Your task to perform on an android device: turn off airplane mode Image 0: 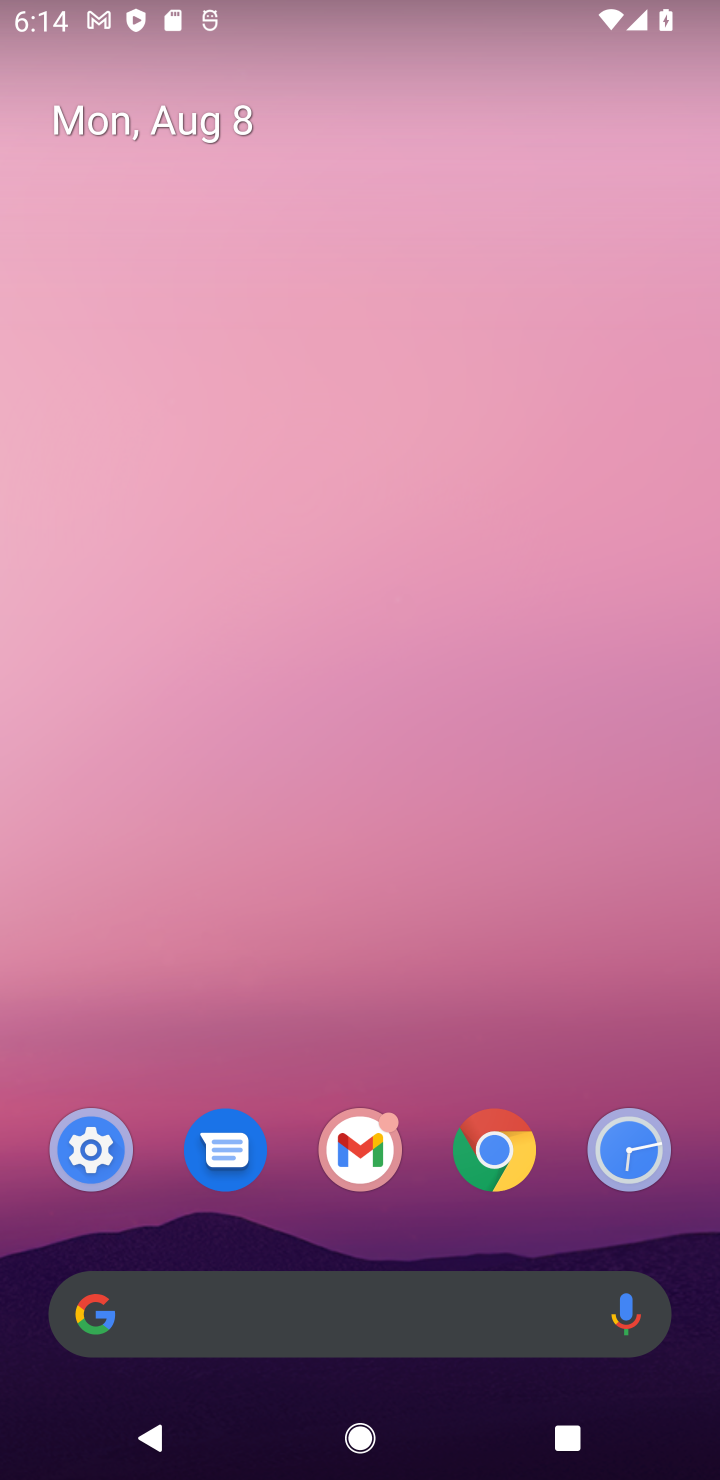
Step 0: click (113, 1182)
Your task to perform on an android device: turn off airplane mode Image 1: 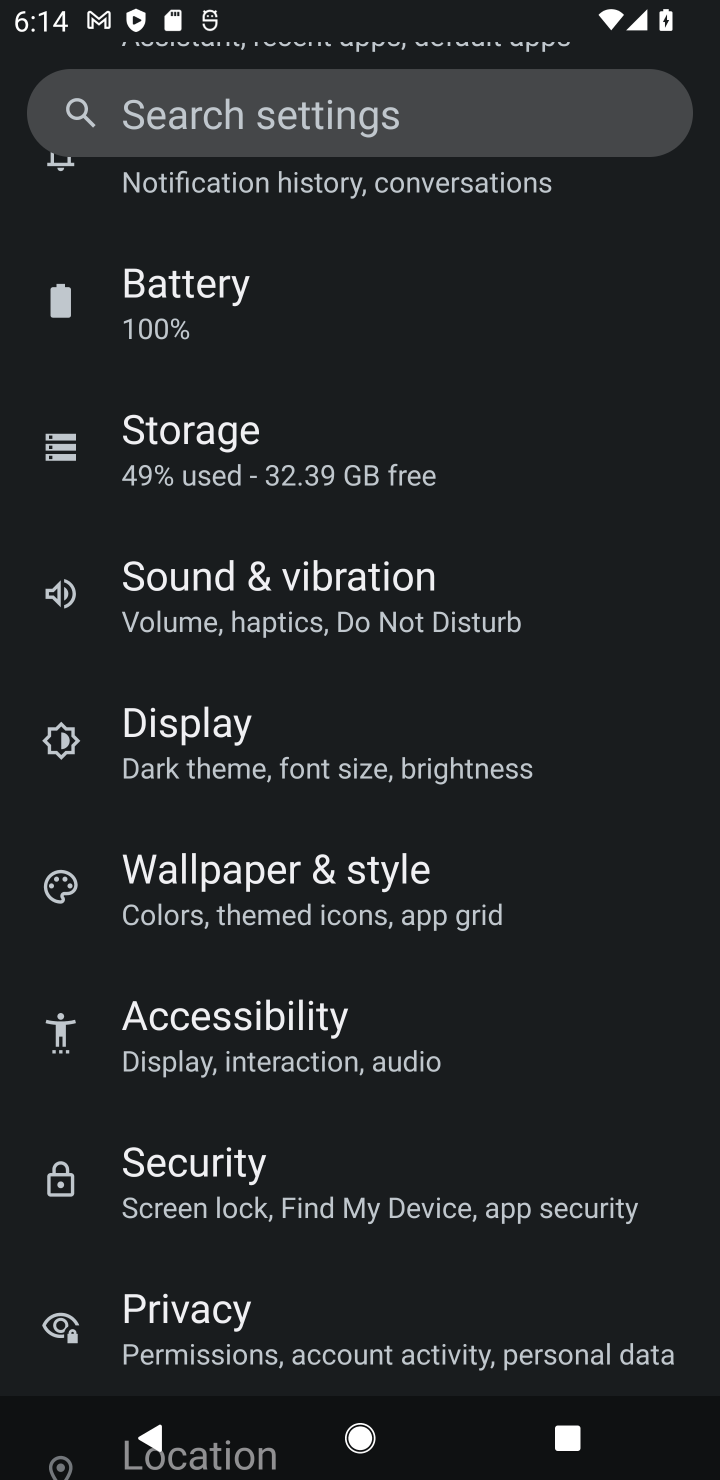
Step 1: drag from (472, 599) to (631, 1358)
Your task to perform on an android device: turn off airplane mode Image 2: 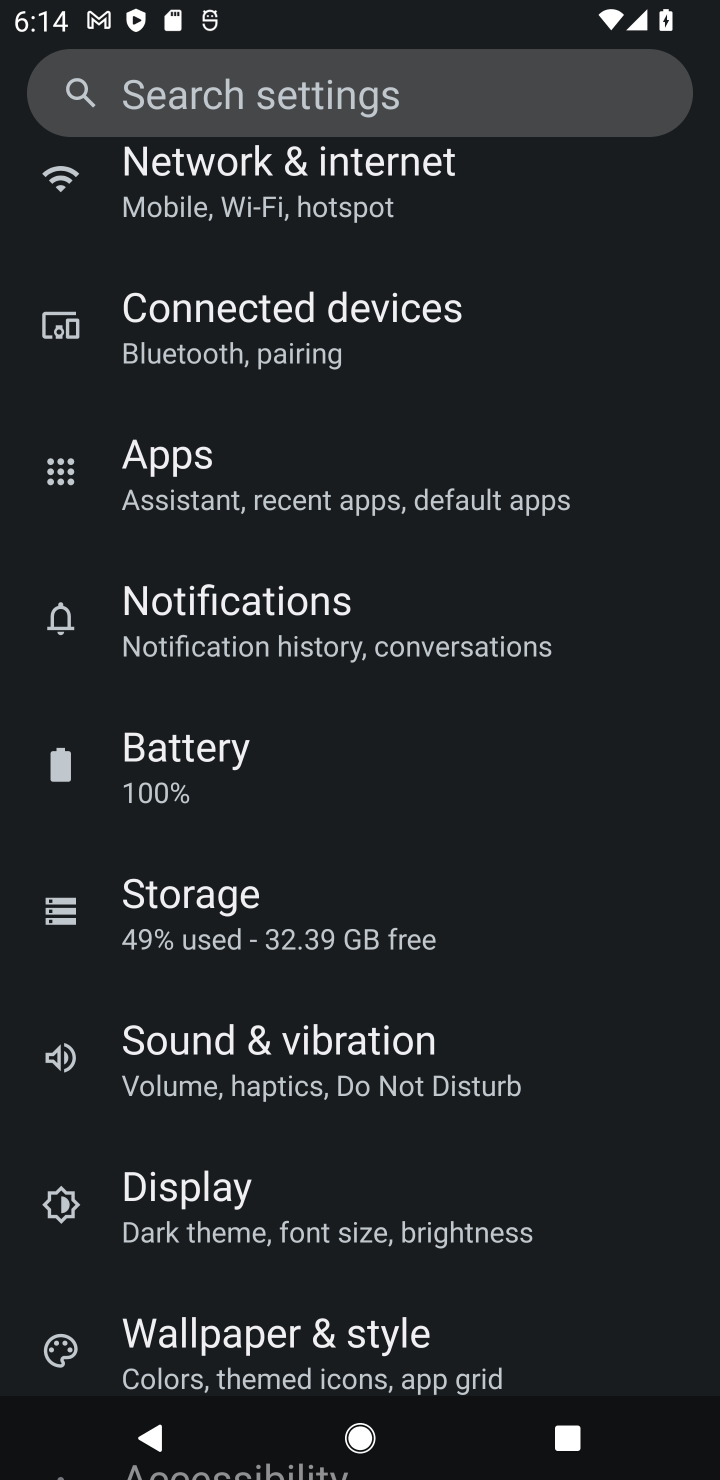
Step 2: click (439, 246)
Your task to perform on an android device: turn off airplane mode Image 3: 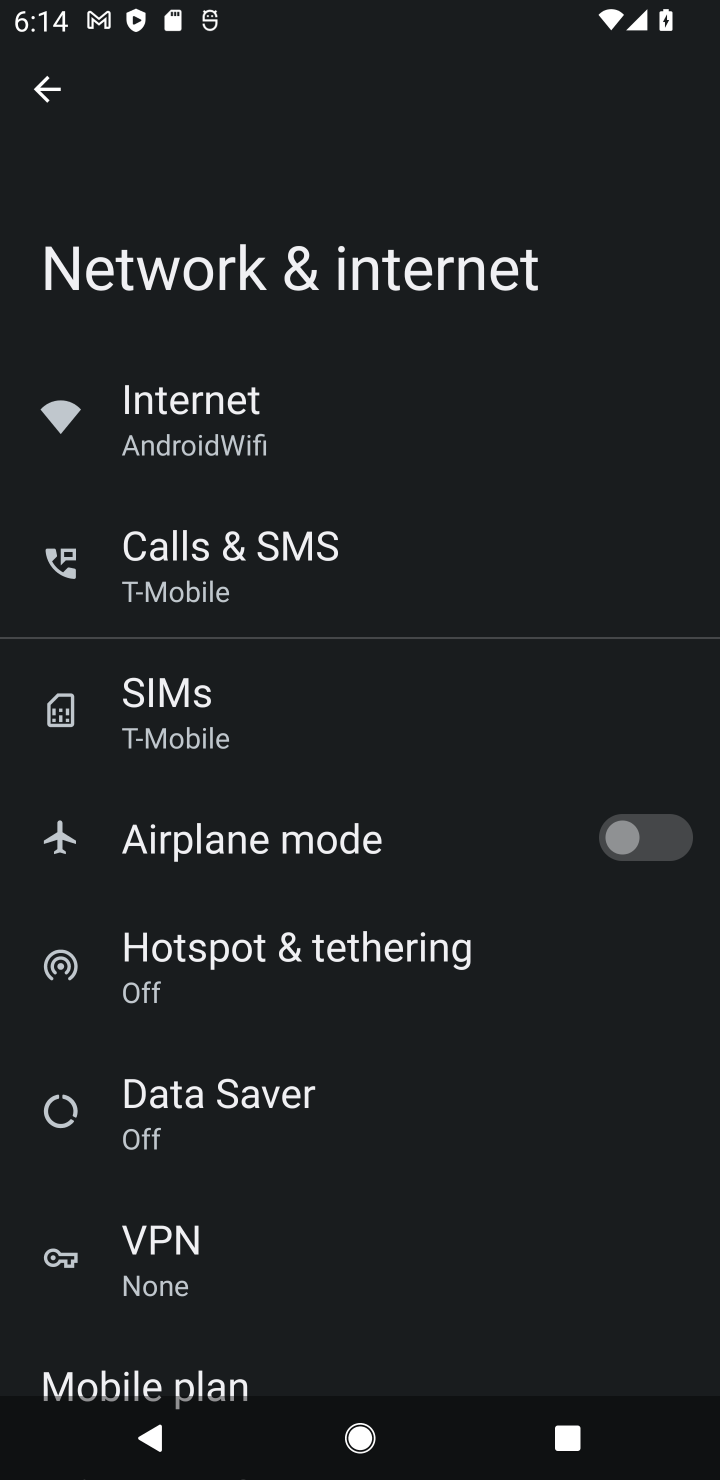
Step 3: task complete